Your task to perform on an android device: Open notification settings Image 0: 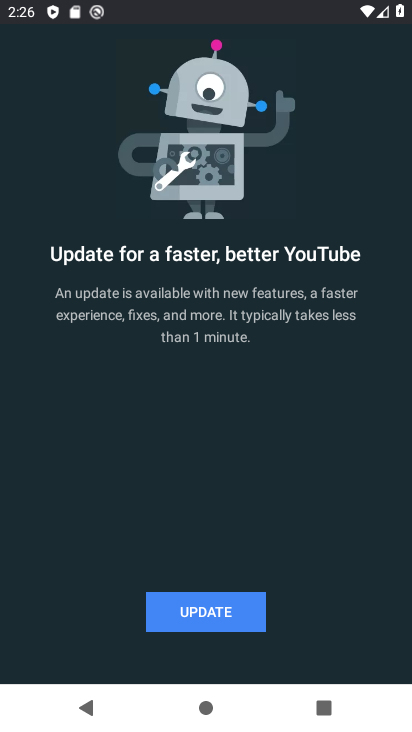
Step 0: press home button
Your task to perform on an android device: Open notification settings Image 1: 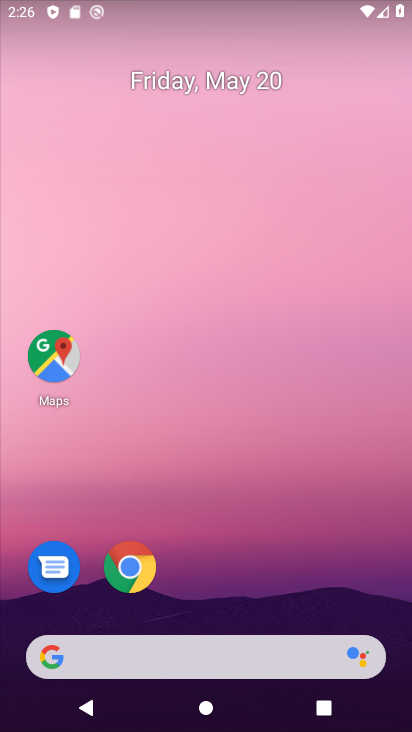
Step 1: drag from (118, 633) to (117, 154)
Your task to perform on an android device: Open notification settings Image 2: 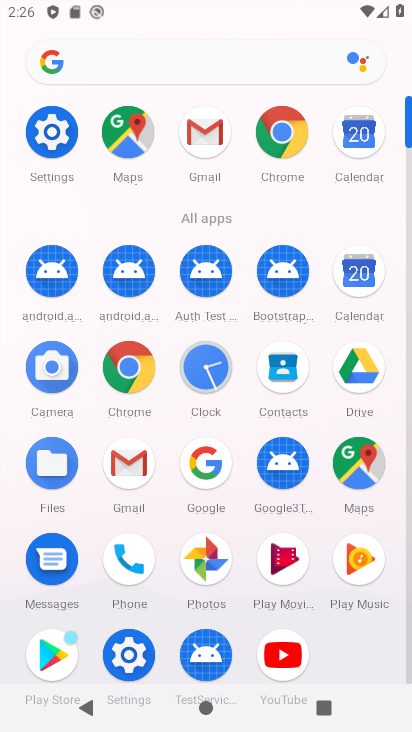
Step 2: click (43, 129)
Your task to perform on an android device: Open notification settings Image 3: 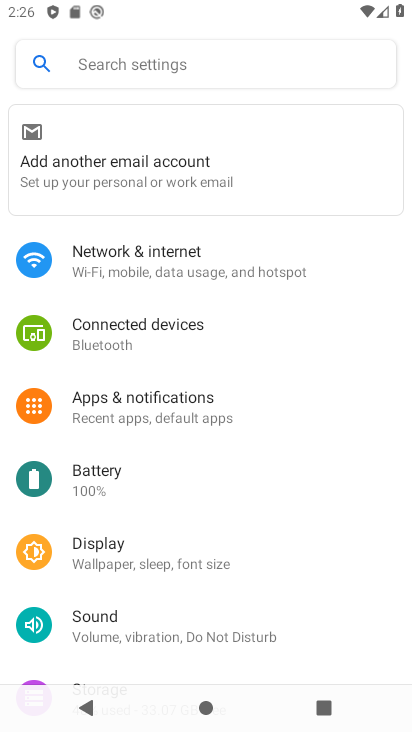
Step 3: click (173, 414)
Your task to perform on an android device: Open notification settings Image 4: 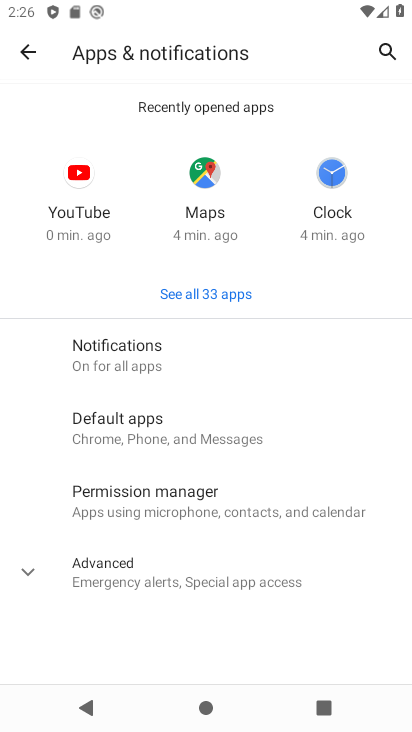
Step 4: click (126, 575)
Your task to perform on an android device: Open notification settings Image 5: 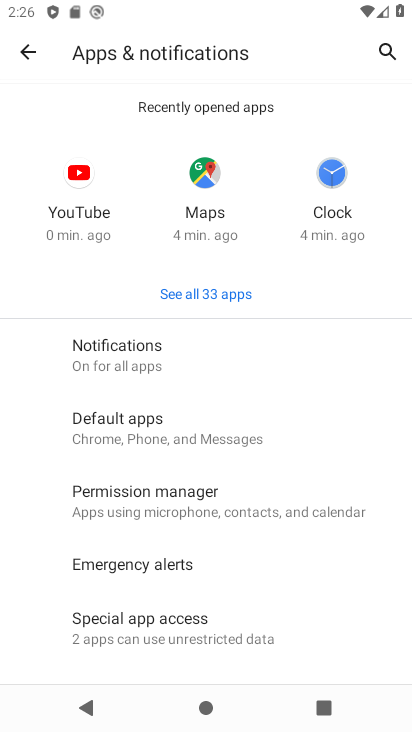
Step 5: task complete